Your task to perform on an android device: Go to Amazon Image 0: 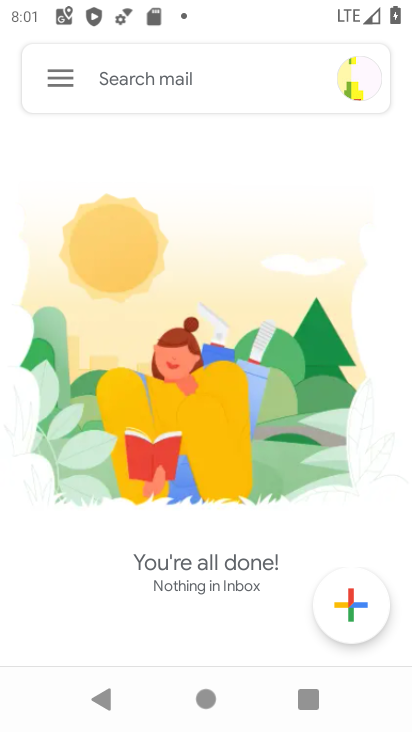
Step 0: press home button
Your task to perform on an android device: Go to Amazon Image 1: 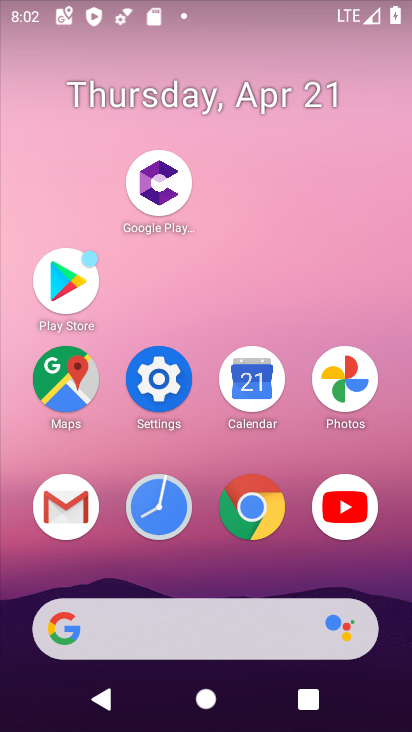
Step 1: click (258, 511)
Your task to perform on an android device: Go to Amazon Image 2: 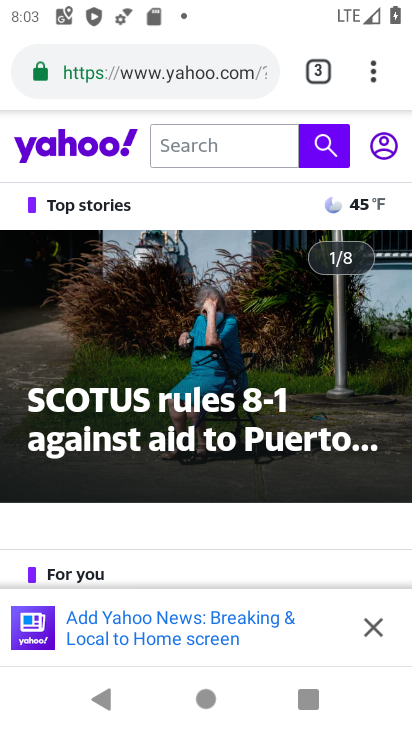
Step 2: click (375, 67)
Your task to perform on an android device: Go to Amazon Image 3: 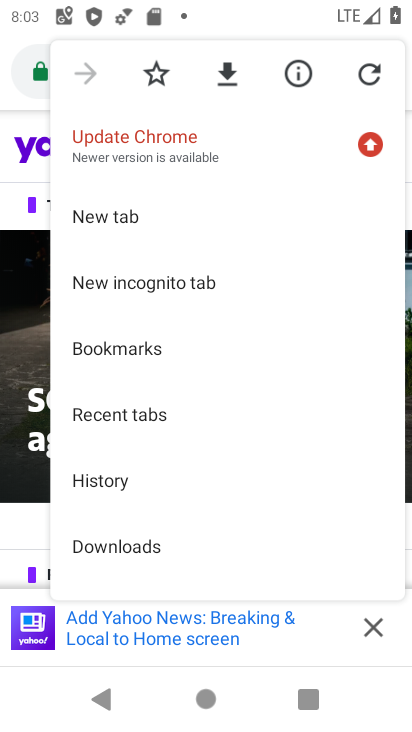
Step 3: click (128, 213)
Your task to perform on an android device: Go to Amazon Image 4: 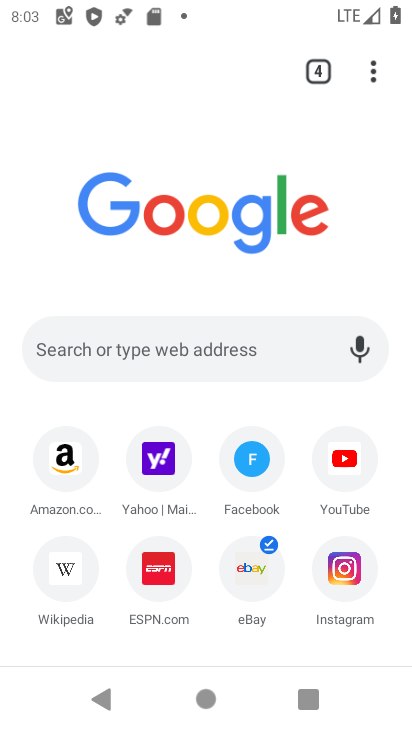
Step 4: click (61, 458)
Your task to perform on an android device: Go to Amazon Image 5: 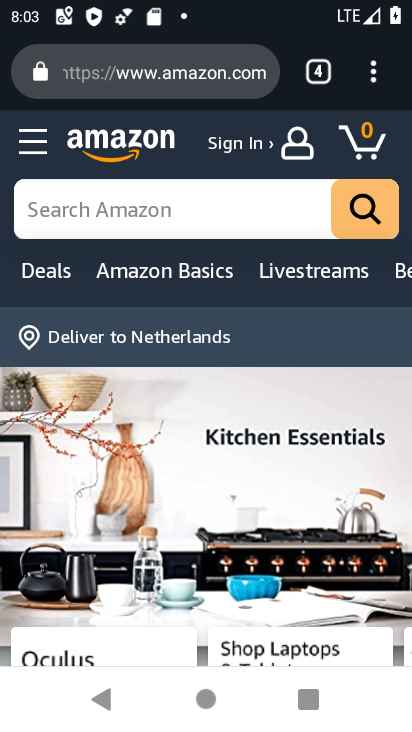
Step 5: task complete